Your task to perform on an android device: What's on my calendar tomorrow? Image 0: 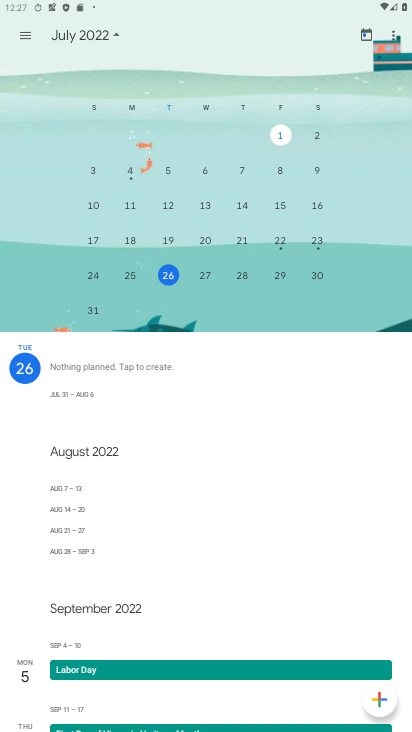
Step 0: press home button
Your task to perform on an android device: What's on my calendar tomorrow? Image 1: 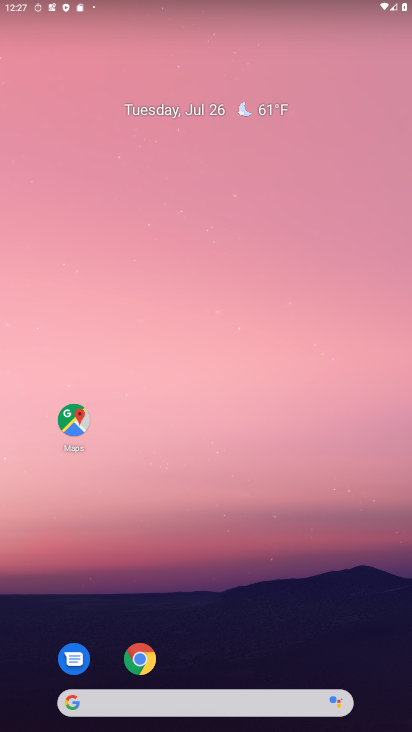
Step 1: drag from (28, 695) to (267, 41)
Your task to perform on an android device: What's on my calendar tomorrow? Image 2: 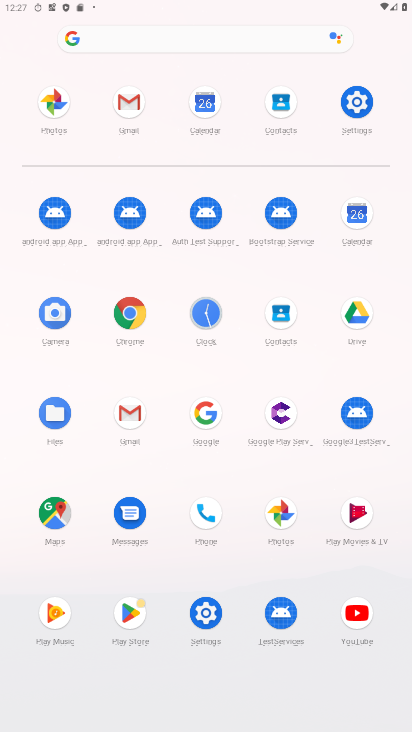
Step 2: click (358, 217)
Your task to perform on an android device: What's on my calendar tomorrow? Image 3: 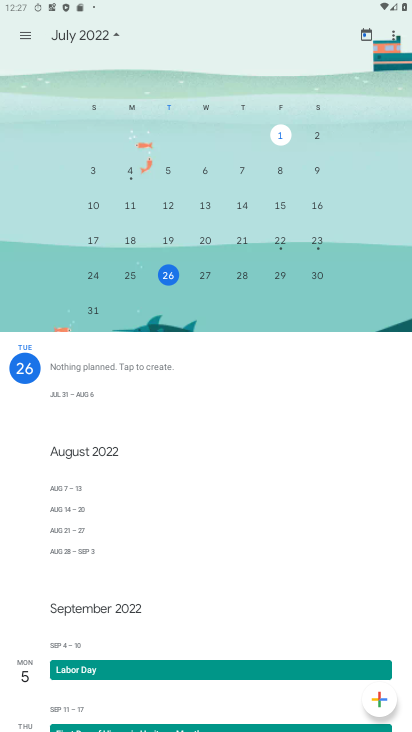
Step 3: task complete